Your task to perform on an android device: Open maps Image 0: 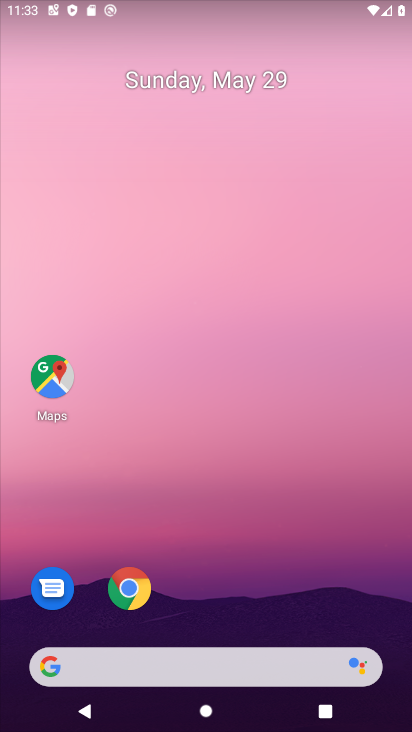
Step 0: drag from (357, 439) to (391, 152)
Your task to perform on an android device: Open maps Image 1: 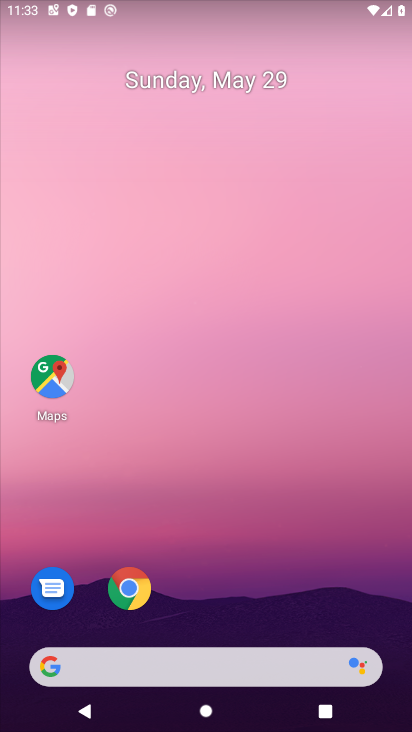
Step 1: drag from (359, 559) to (348, 112)
Your task to perform on an android device: Open maps Image 2: 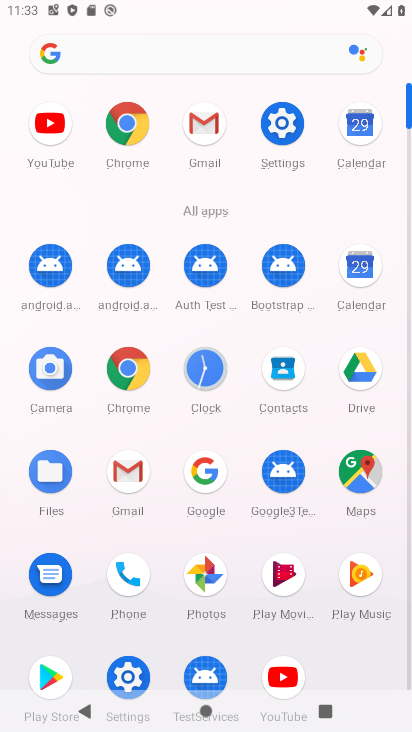
Step 2: click (371, 473)
Your task to perform on an android device: Open maps Image 3: 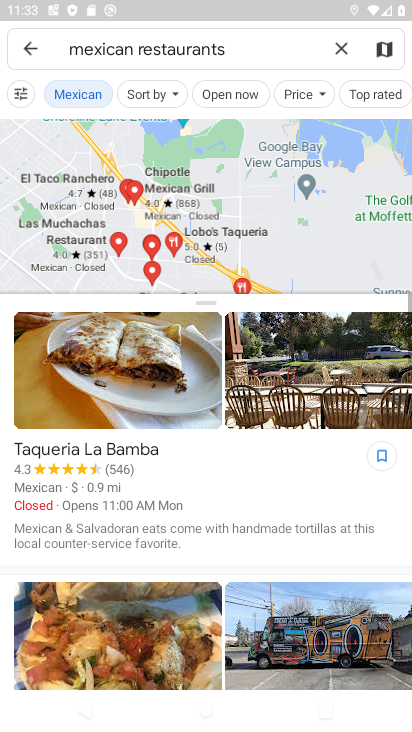
Step 3: task complete